Your task to perform on an android device: find snoozed emails in the gmail app Image 0: 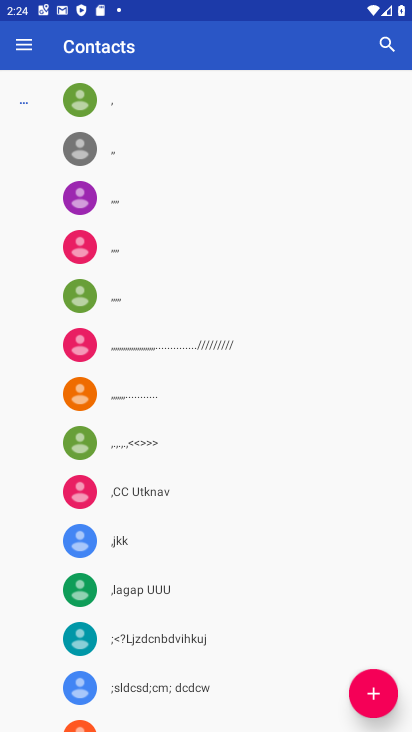
Step 0: press home button
Your task to perform on an android device: find snoozed emails in the gmail app Image 1: 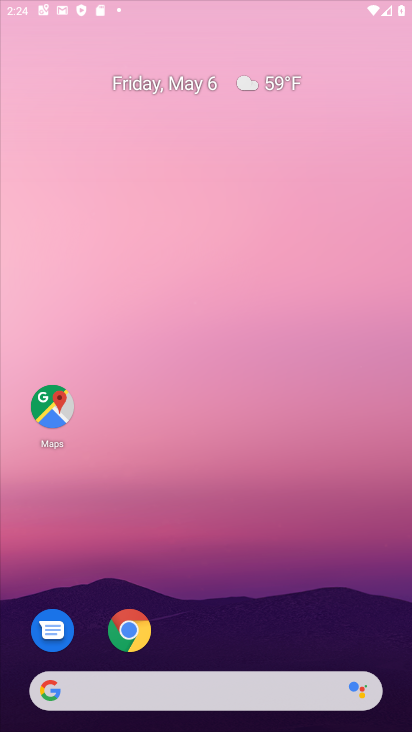
Step 1: drag from (228, 628) to (137, 123)
Your task to perform on an android device: find snoozed emails in the gmail app Image 2: 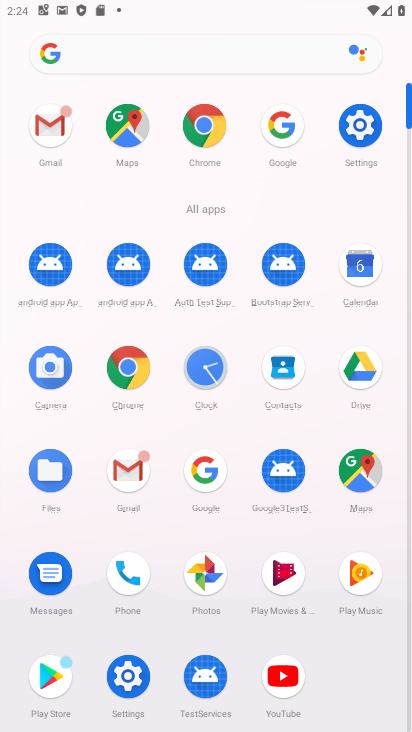
Step 2: click (60, 124)
Your task to perform on an android device: find snoozed emails in the gmail app Image 3: 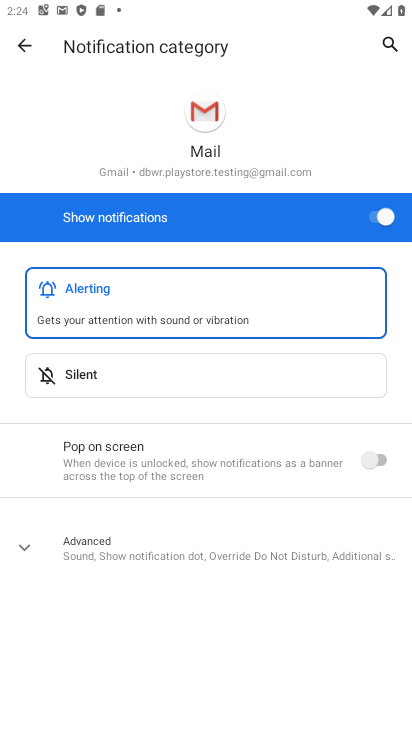
Step 3: click (31, 53)
Your task to perform on an android device: find snoozed emails in the gmail app Image 4: 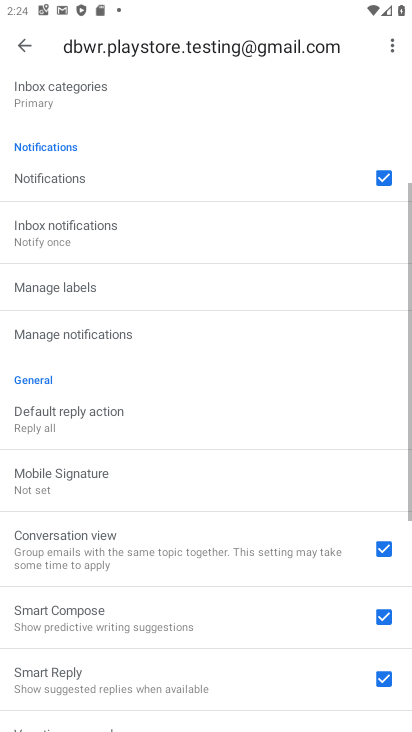
Step 4: click (31, 53)
Your task to perform on an android device: find snoozed emails in the gmail app Image 5: 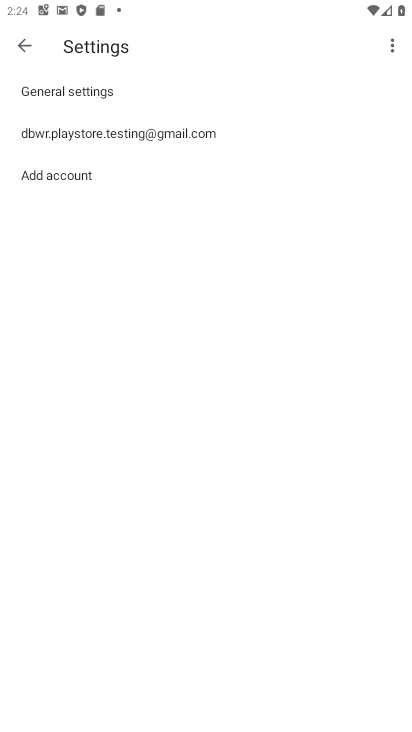
Step 5: click (31, 53)
Your task to perform on an android device: find snoozed emails in the gmail app Image 6: 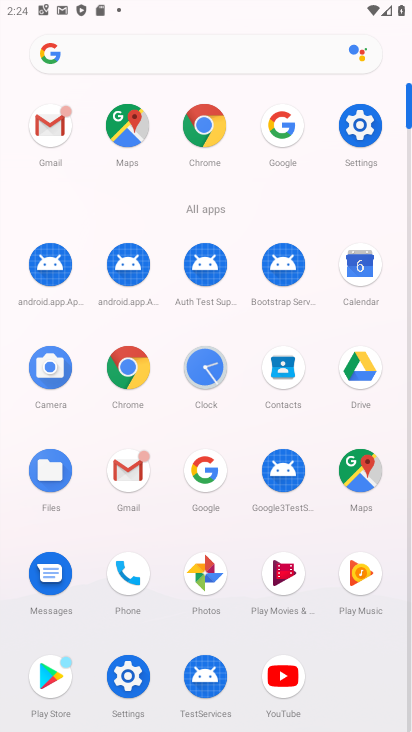
Step 6: click (57, 147)
Your task to perform on an android device: find snoozed emails in the gmail app Image 7: 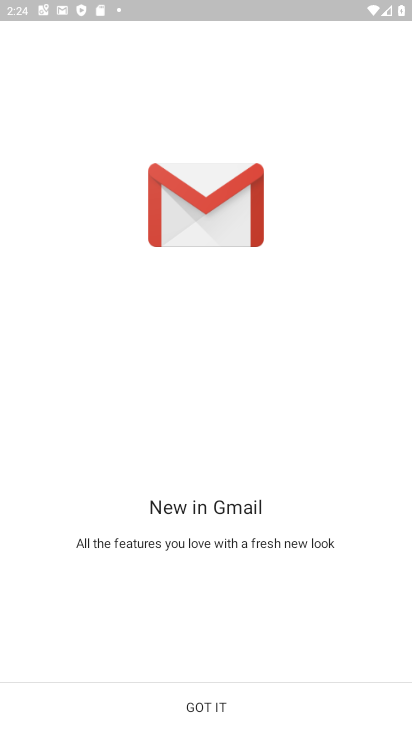
Step 7: click (246, 708)
Your task to perform on an android device: find snoozed emails in the gmail app Image 8: 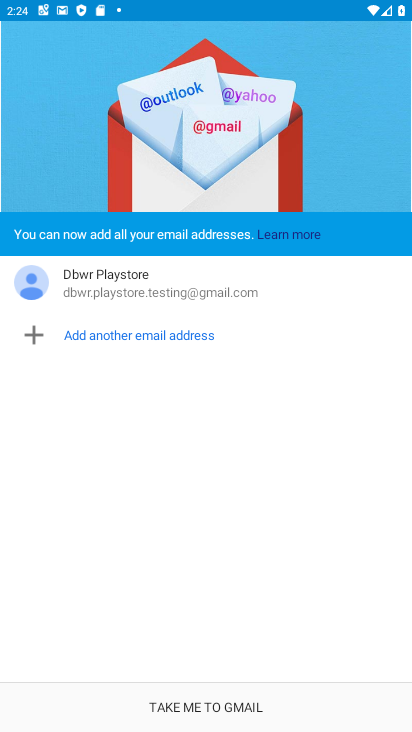
Step 8: click (217, 690)
Your task to perform on an android device: find snoozed emails in the gmail app Image 9: 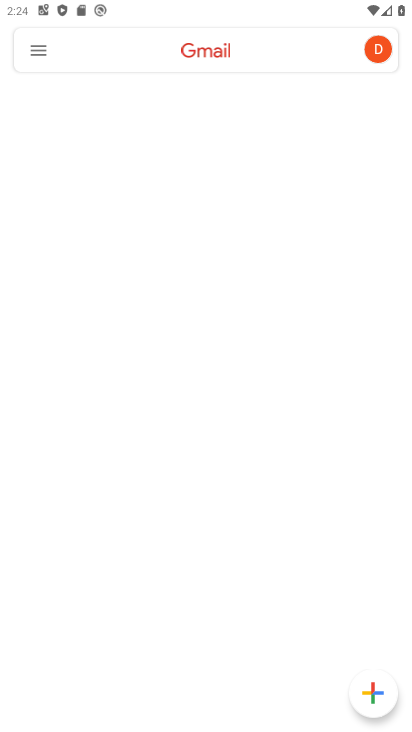
Step 9: click (31, 54)
Your task to perform on an android device: find snoozed emails in the gmail app Image 10: 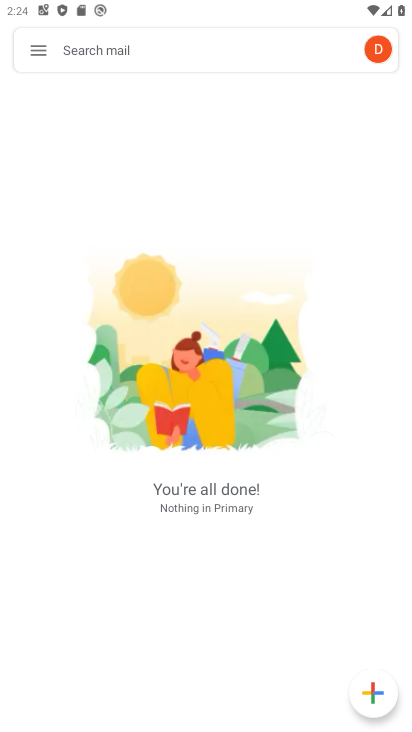
Step 10: click (37, 55)
Your task to perform on an android device: find snoozed emails in the gmail app Image 11: 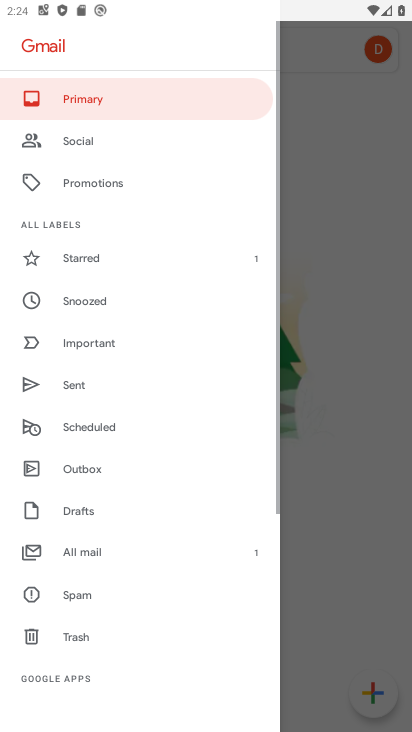
Step 11: drag from (130, 653) to (141, 327)
Your task to perform on an android device: find snoozed emails in the gmail app Image 12: 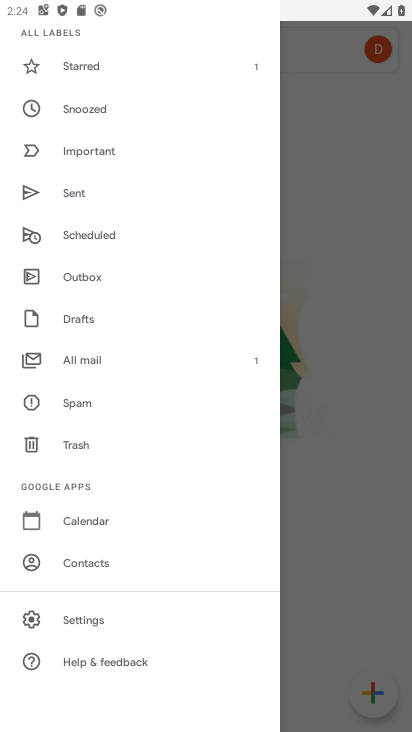
Step 12: click (107, 100)
Your task to perform on an android device: find snoozed emails in the gmail app Image 13: 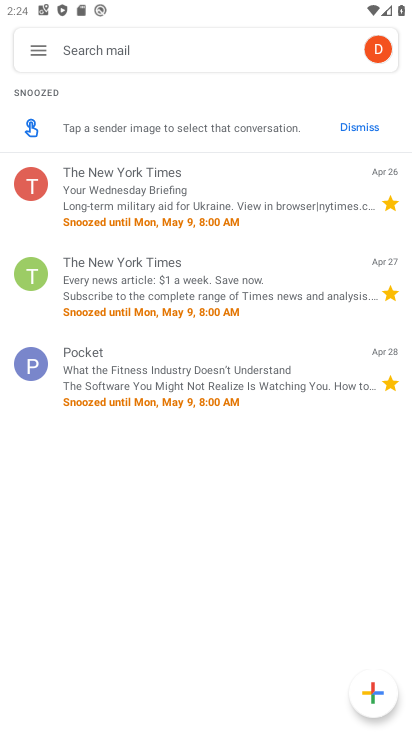
Step 13: task complete